Your task to perform on an android device: change the clock style Image 0: 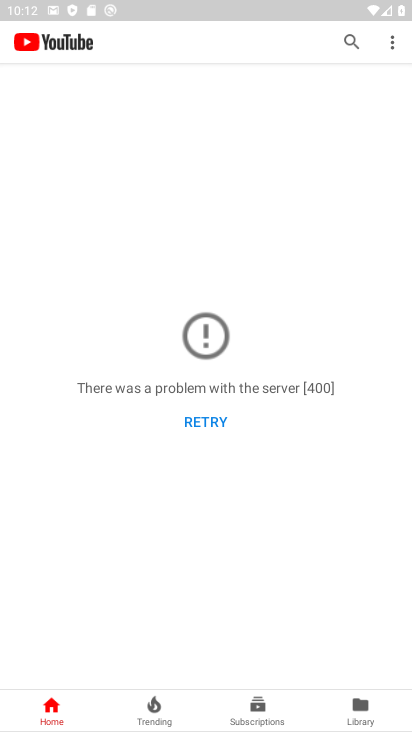
Step 0: press home button
Your task to perform on an android device: change the clock style Image 1: 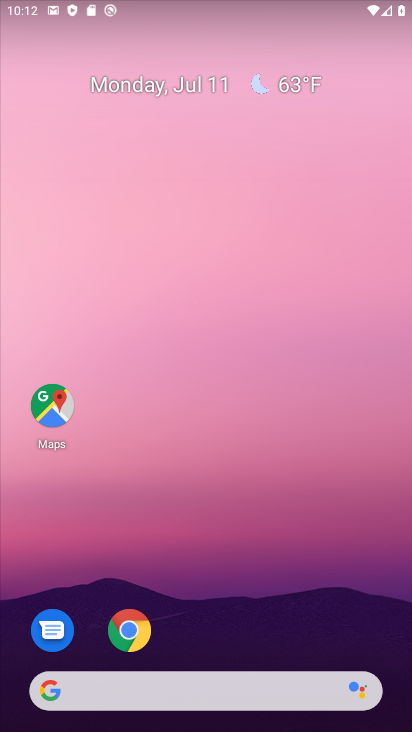
Step 1: drag from (369, 636) to (281, 104)
Your task to perform on an android device: change the clock style Image 2: 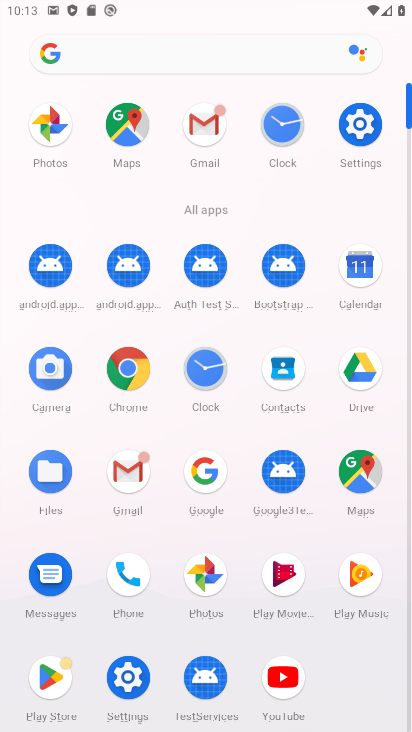
Step 2: click (201, 372)
Your task to perform on an android device: change the clock style Image 3: 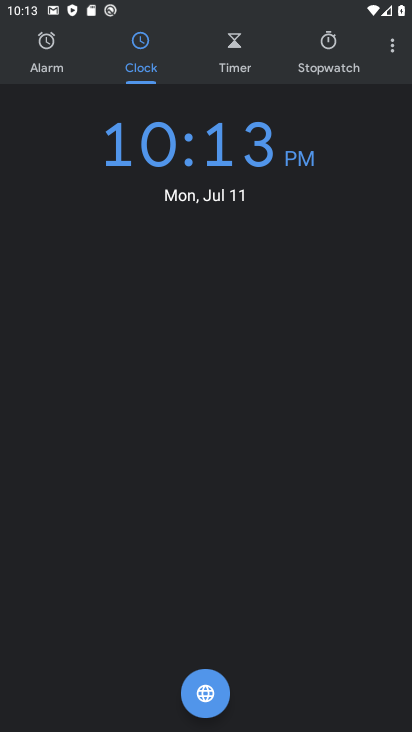
Step 3: click (388, 53)
Your task to perform on an android device: change the clock style Image 4: 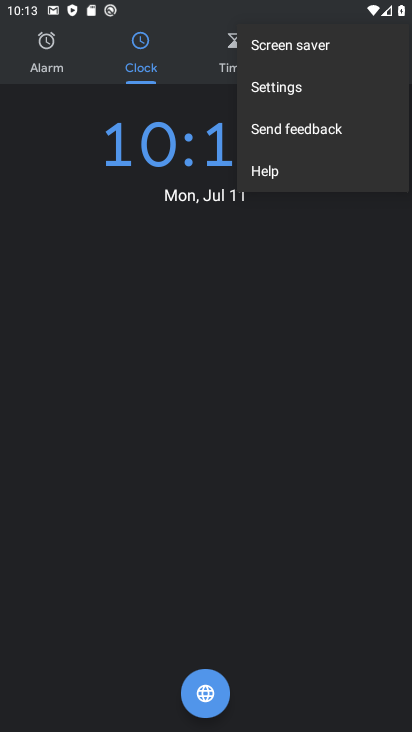
Step 4: click (277, 92)
Your task to perform on an android device: change the clock style Image 5: 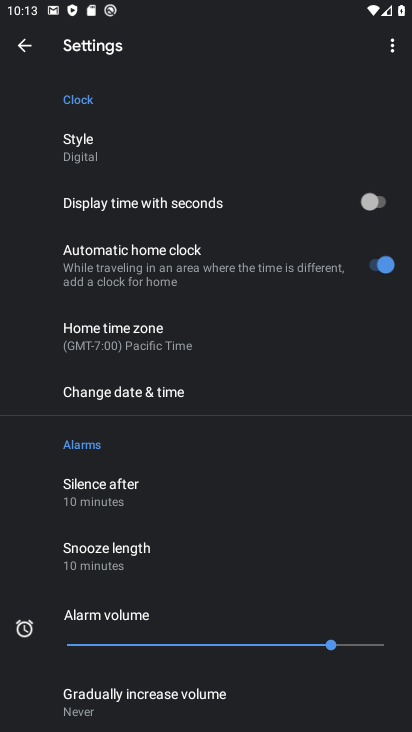
Step 5: click (58, 159)
Your task to perform on an android device: change the clock style Image 6: 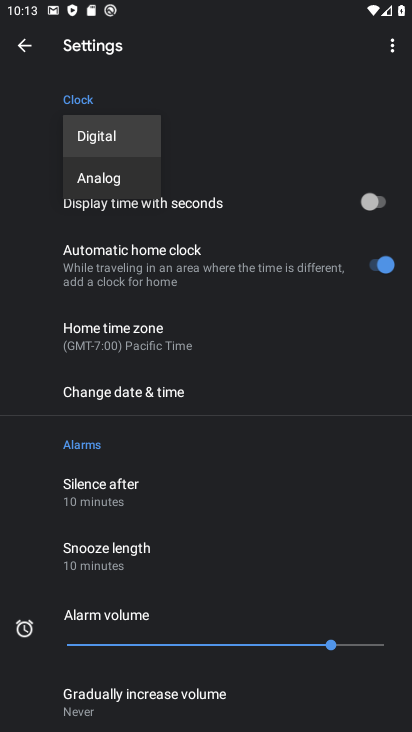
Step 6: click (96, 176)
Your task to perform on an android device: change the clock style Image 7: 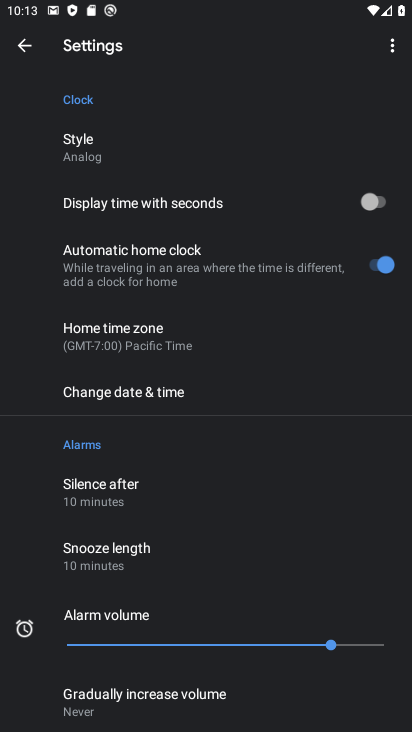
Step 7: task complete